Your task to perform on an android device: toggle priority inbox in the gmail app Image 0: 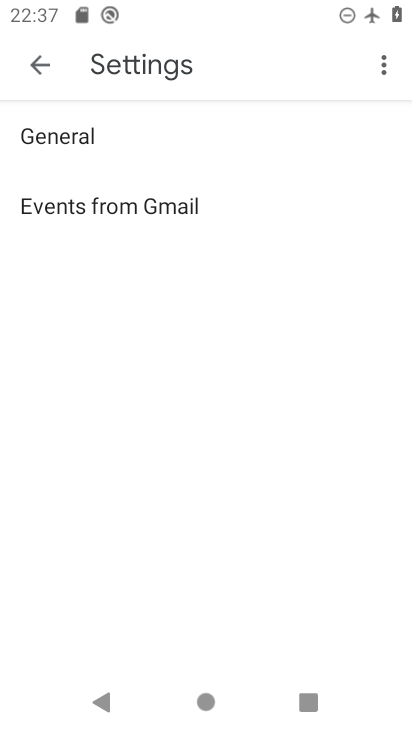
Step 0: press home button
Your task to perform on an android device: toggle priority inbox in the gmail app Image 1: 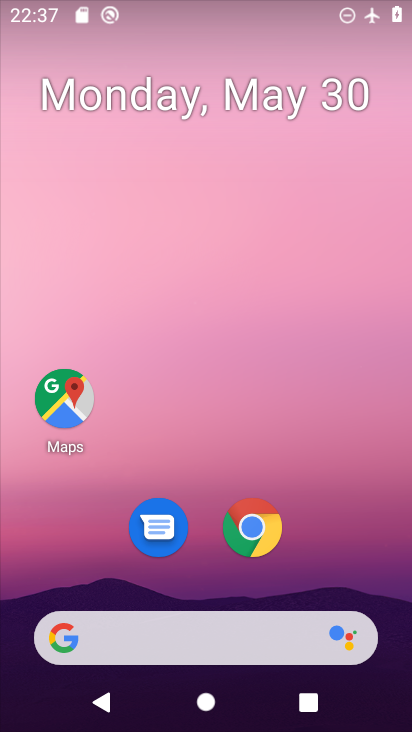
Step 1: drag from (316, 526) to (295, 230)
Your task to perform on an android device: toggle priority inbox in the gmail app Image 2: 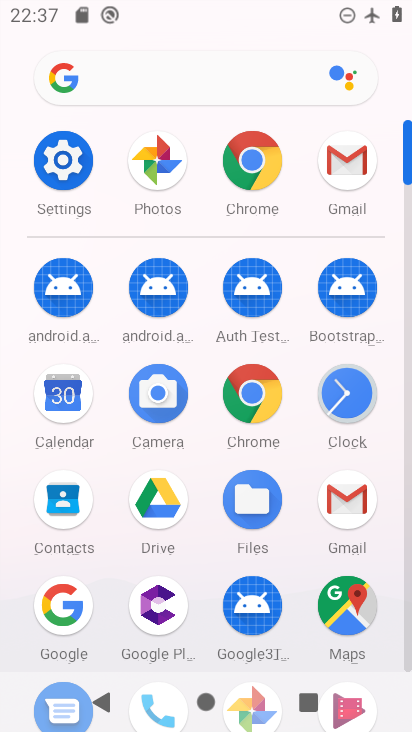
Step 2: click (355, 485)
Your task to perform on an android device: toggle priority inbox in the gmail app Image 3: 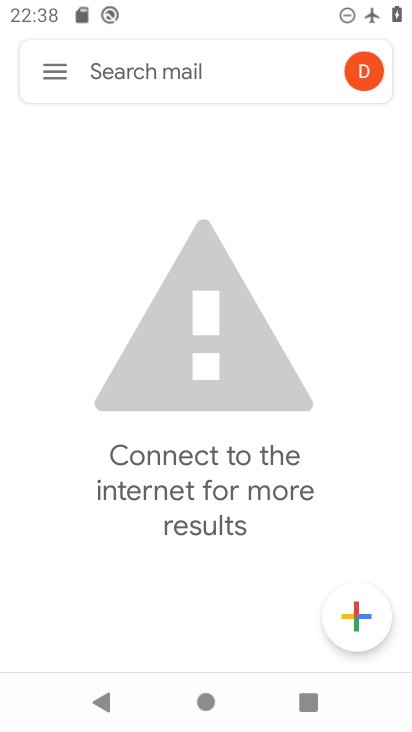
Step 3: click (56, 70)
Your task to perform on an android device: toggle priority inbox in the gmail app Image 4: 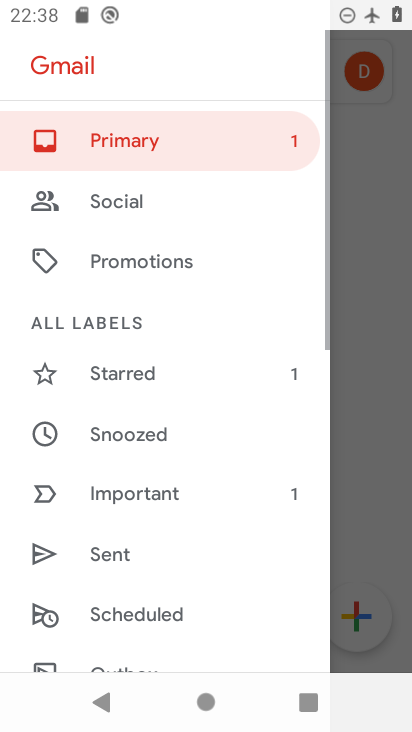
Step 4: drag from (186, 482) to (213, 291)
Your task to perform on an android device: toggle priority inbox in the gmail app Image 5: 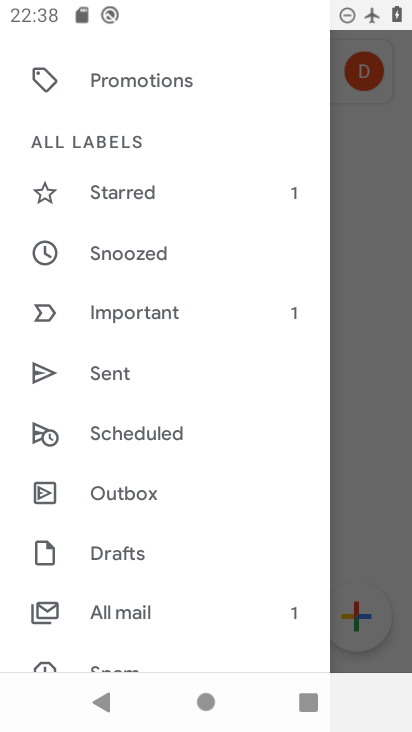
Step 5: drag from (146, 578) to (182, 391)
Your task to perform on an android device: toggle priority inbox in the gmail app Image 6: 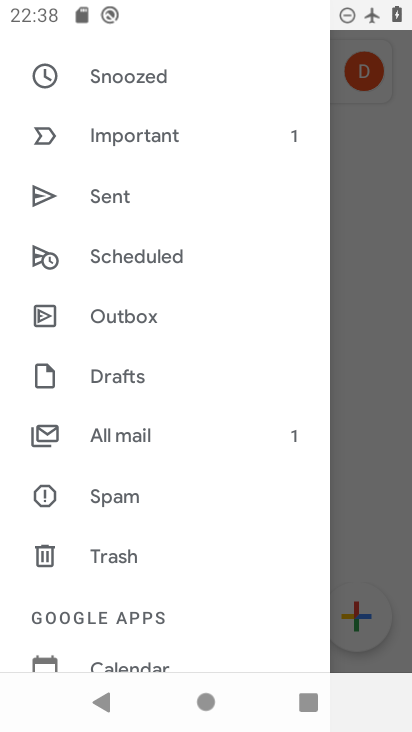
Step 6: drag from (118, 628) to (197, 318)
Your task to perform on an android device: toggle priority inbox in the gmail app Image 7: 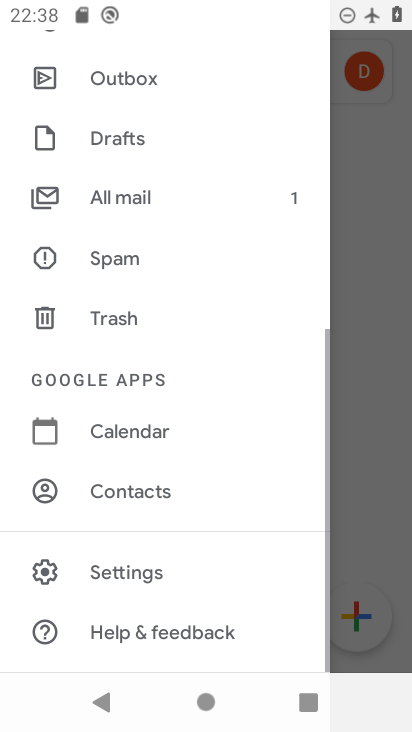
Step 7: click (140, 574)
Your task to perform on an android device: toggle priority inbox in the gmail app Image 8: 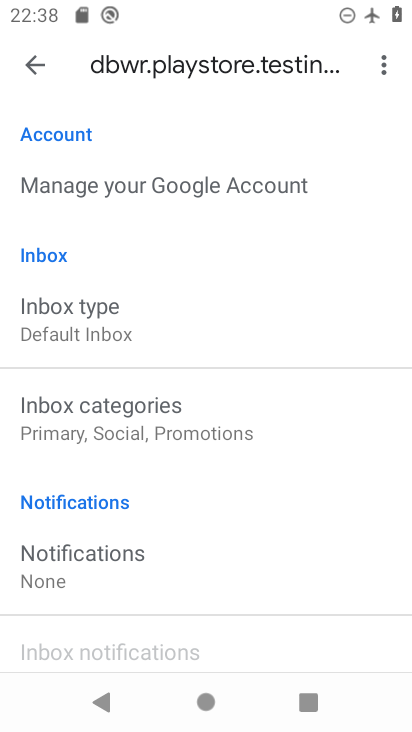
Step 8: drag from (196, 552) to (192, 466)
Your task to perform on an android device: toggle priority inbox in the gmail app Image 9: 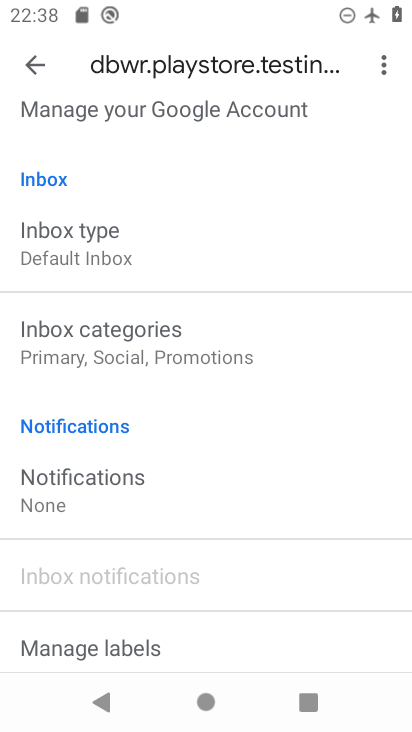
Step 9: click (103, 242)
Your task to perform on an android device: toggle priority inbox in the gmail app Image 10: 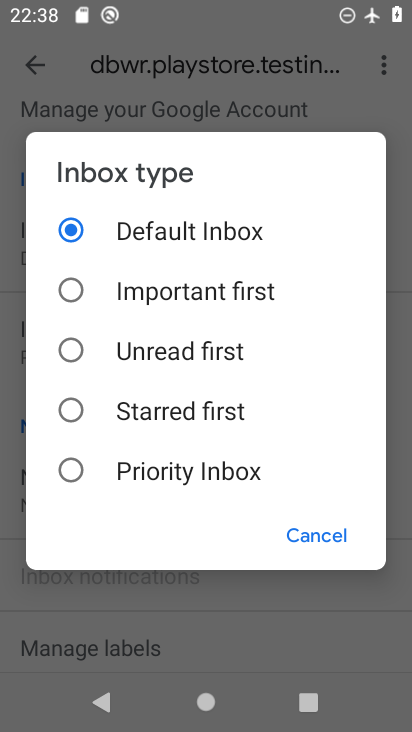
Step 10: click (160, 474)
Your task to perform on an android device: toggle priority inbox in the gmail app Image 11: 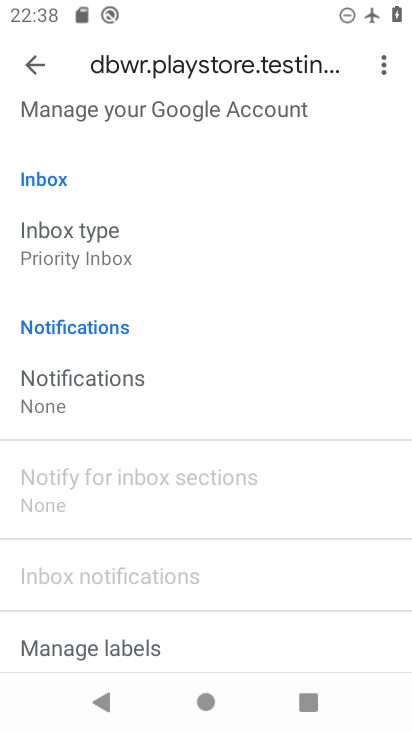
Step 11: task complete